Your task to perform on an android device: Open sound settings Image 0: 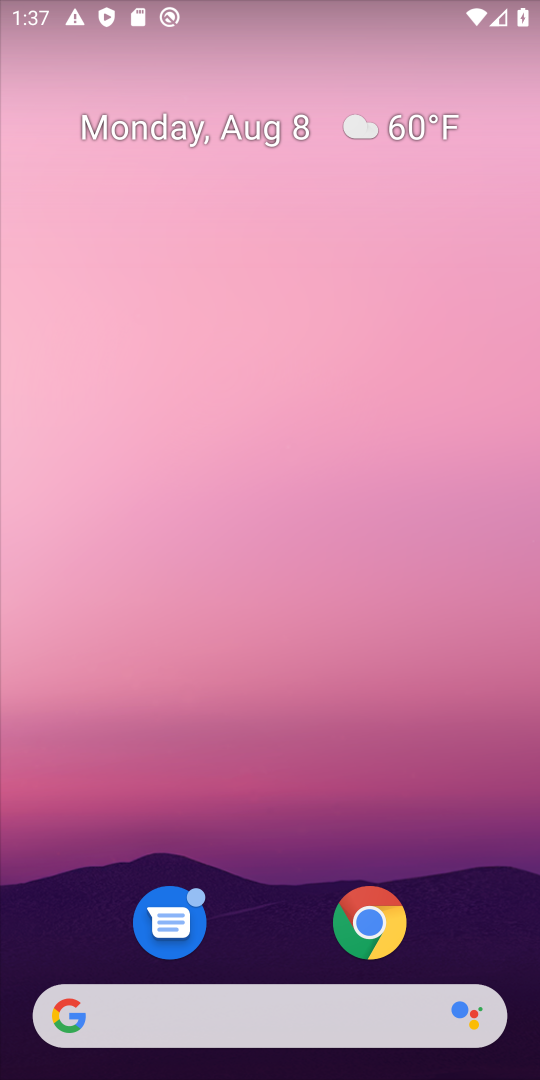
Step 0: drag from (265, 914) to (328, 107)
Your task to perform on an android device: Open sound settings Image 1: 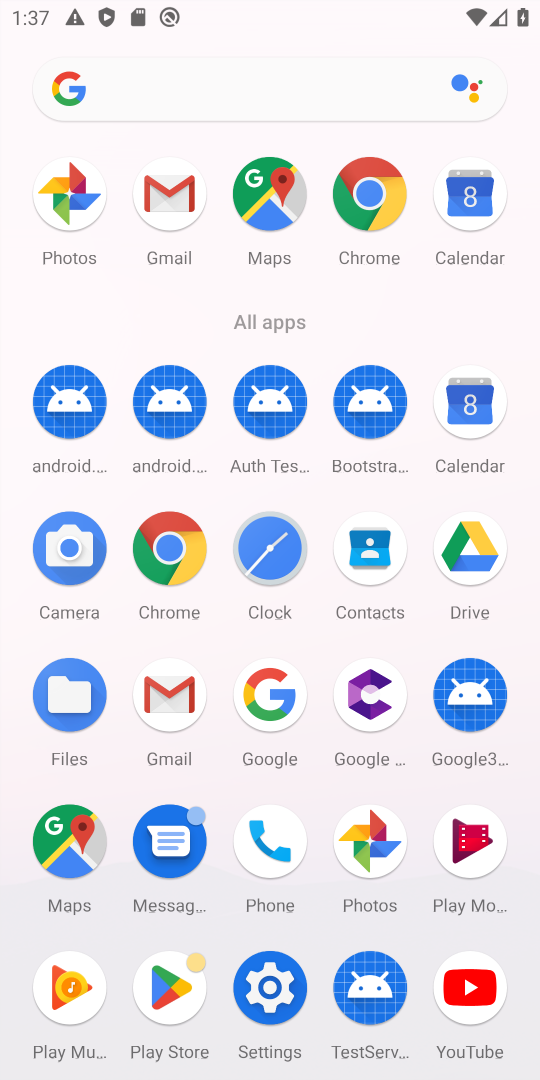
Step 1: click (267, 991)
Your task to perform on an android device: Open sound settings Image 2: 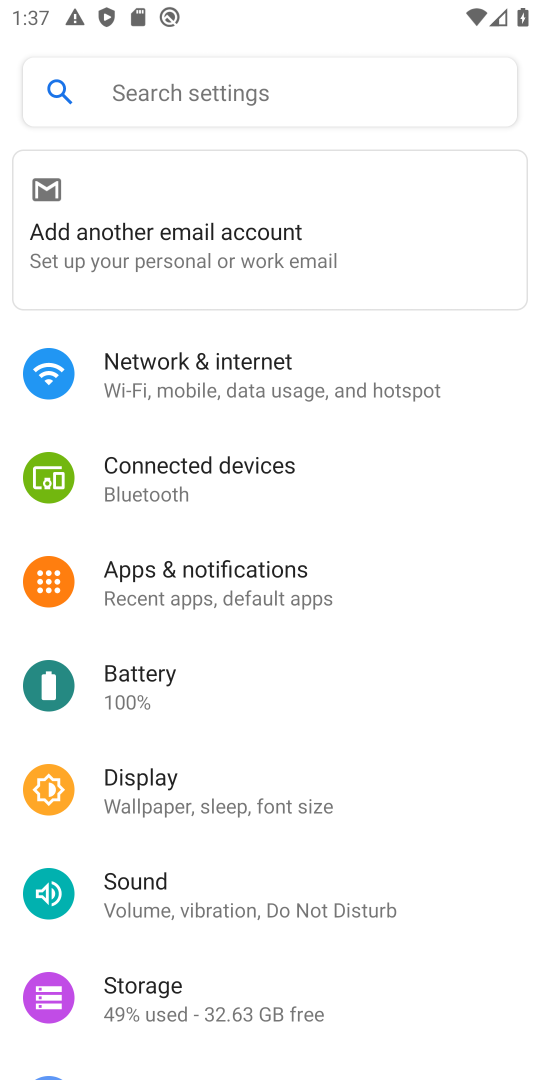
Step 2: drag from (328, 847) to (384, 386)
Your task to perform on an android device: Open sound settings Image 3: 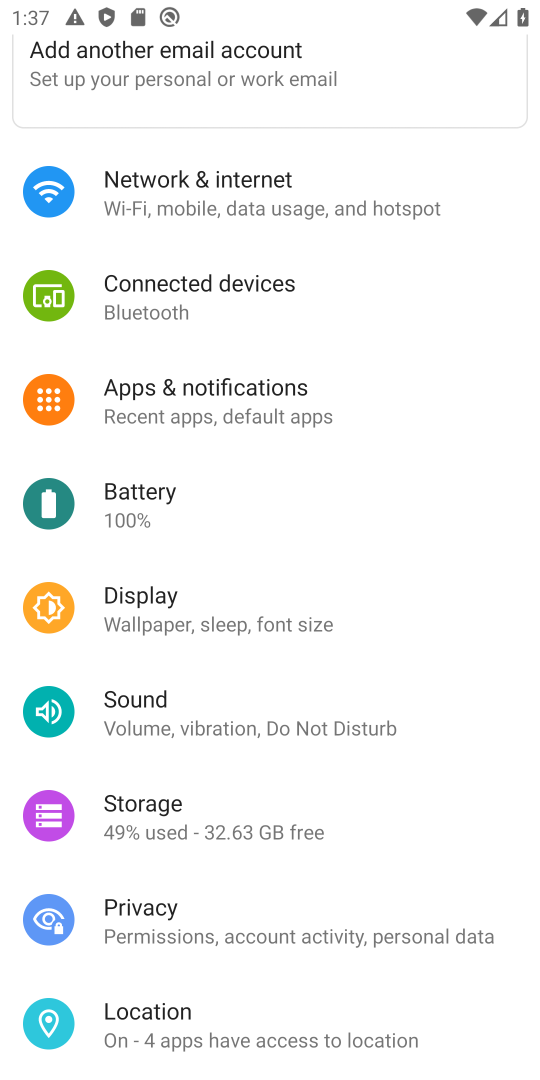
Step 3: click (177, 688)
Your task to perform on an android device: Open sound settings Image 4: 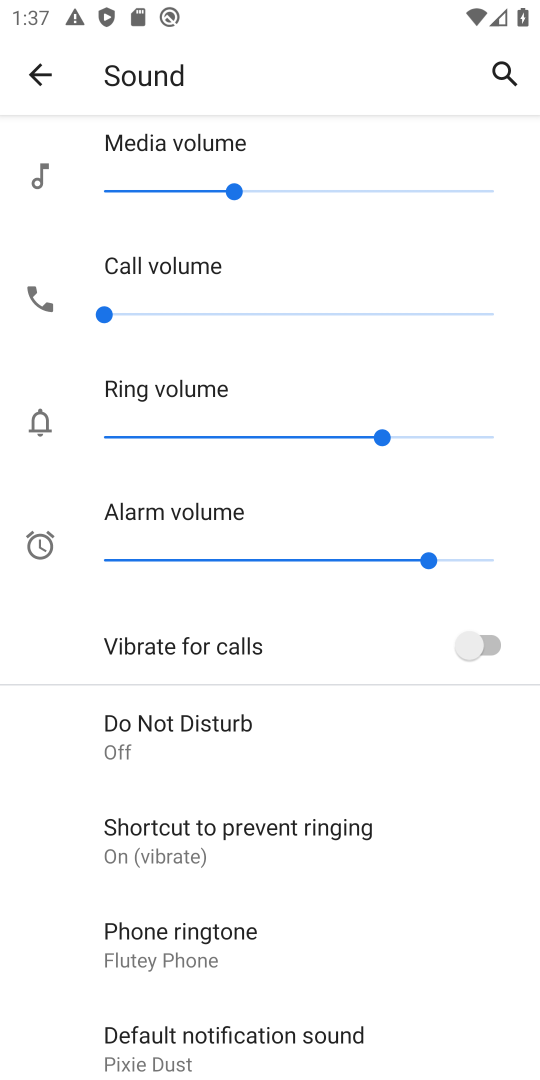
Step 4: task complete